Your task to perform on an android device: turn smart compose on in the gmail app Image 0: 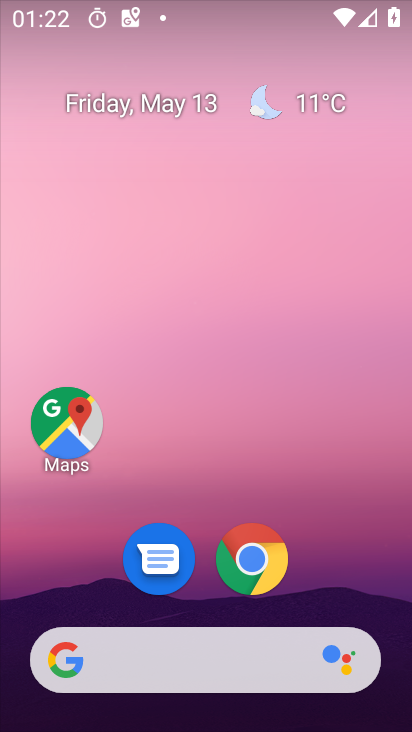
Step 0: drag from (347, 536) to (329, 57)
Your task to perform on an android device: turn smart compose on in the gmail app Image 1: 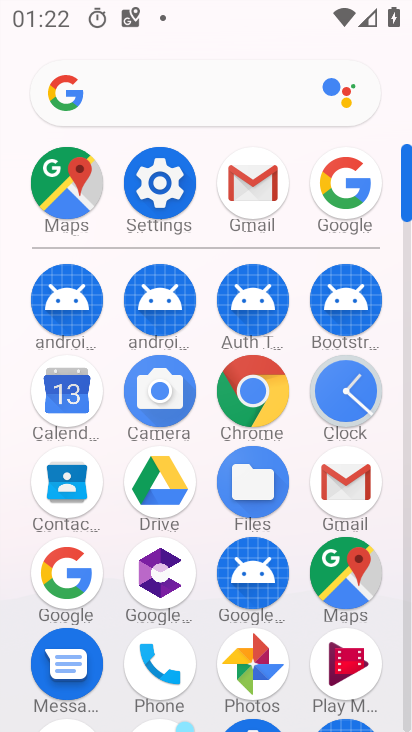
Step 1: click (246, 182)
Your task to perform on an android device: turn smart compose on in the gmail app Image 2: 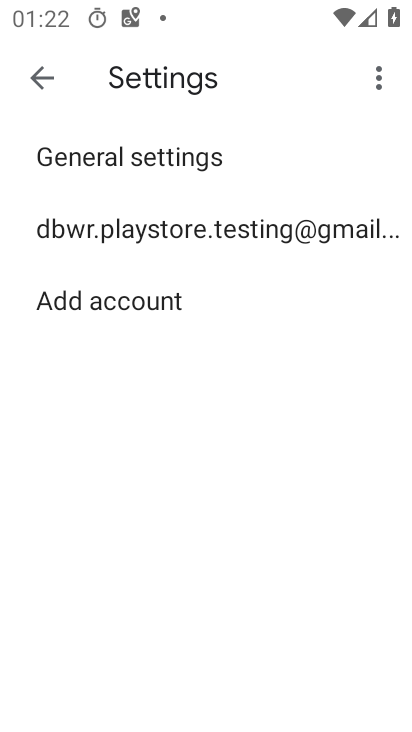
Step 2: drag from (162, 258) to (411, 387)
Your task to perform on an android device: turn smart compose on in the gmail app Image 3: 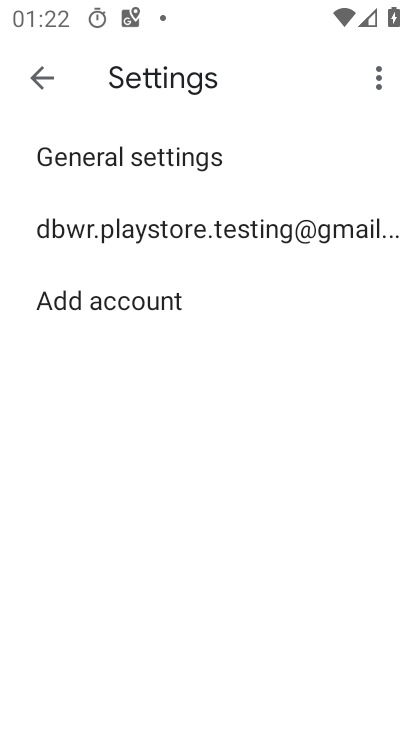
Step 3: click (195, 241)
Your task to perform on an android device: turn smart compose on in the gmail app Image 4: 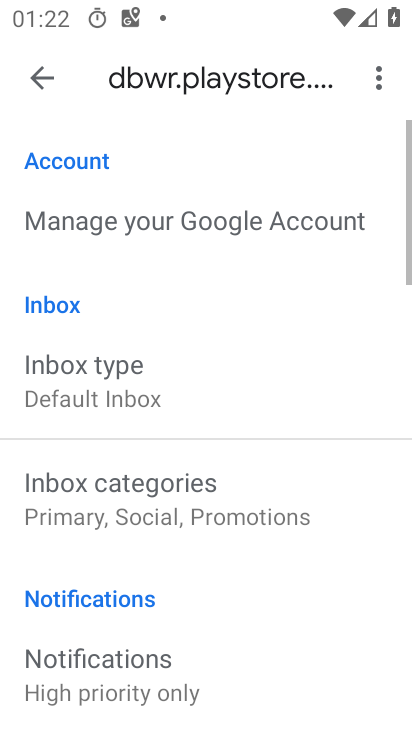
Step 4: task complete